Your task to perform on an android device: Go to ESPN.com Image 0: 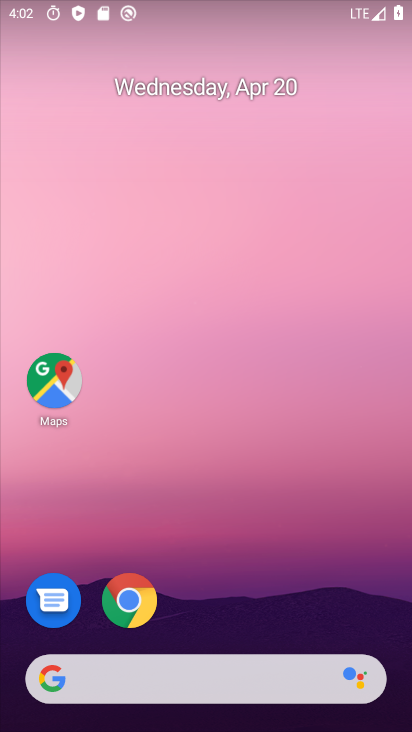
Step 0: click (137, 594)
Your task to perform on an android device: Go to ESPN.com Image 1: 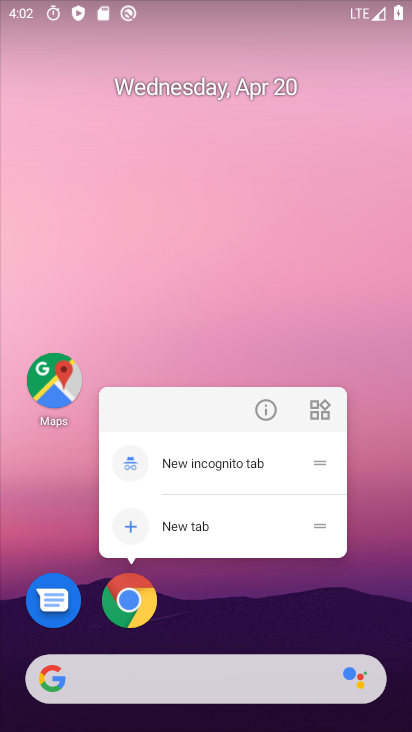
Step 1: click (129, 602)
Your task to perform on an android device: Go to ESPN.com Image 2: 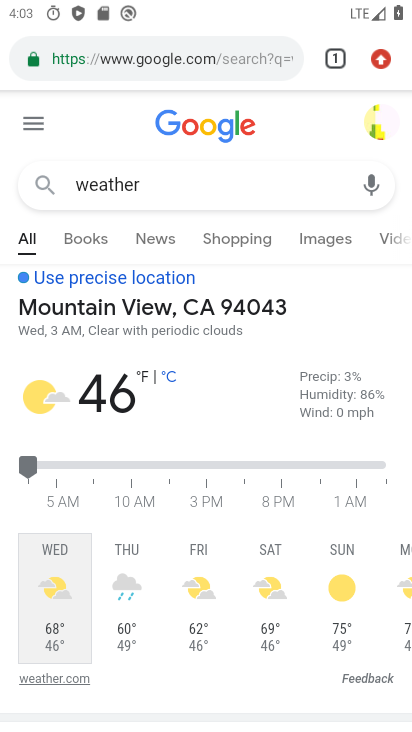
Step 2: click (176, 54)
Your task to perform on an android device: Go to ESPN.com Image 3: 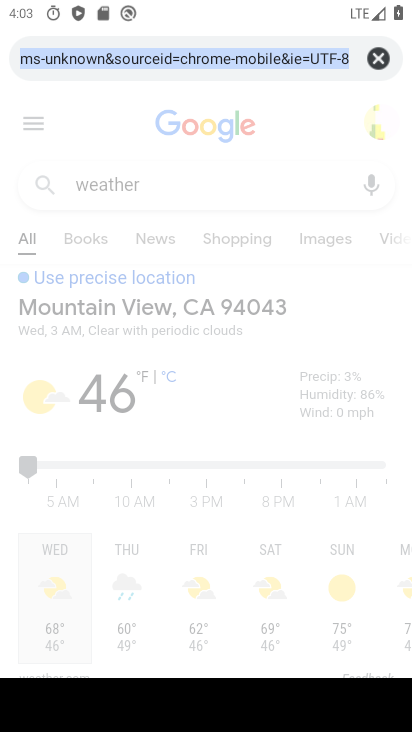
Step 3: type "espn.com"
Your task to perform on an android device: Go to ESPN.com Image 4: 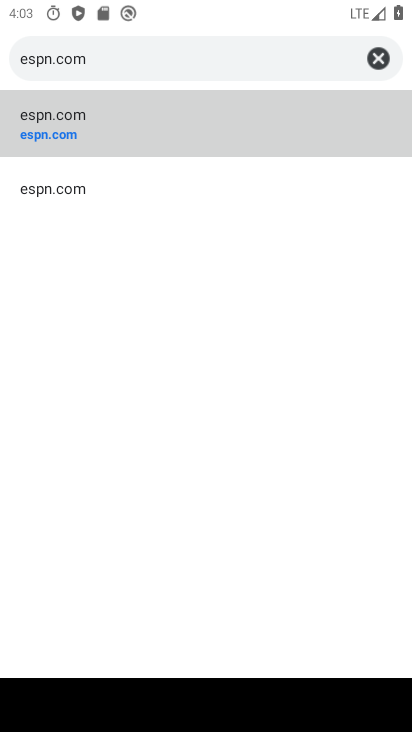
Step 4: click (56, 120)
Your task to perform on an android device: Go to ESPN.com Image 5: 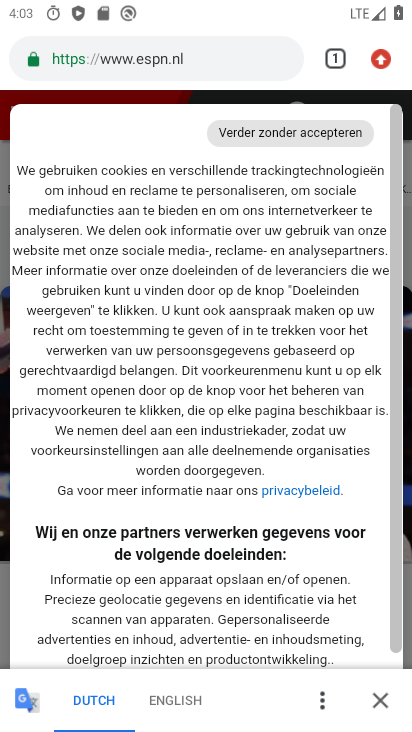
Step 5: task complete